Your task to perform on an android device: Is it going to rain this weekend? Image 0: 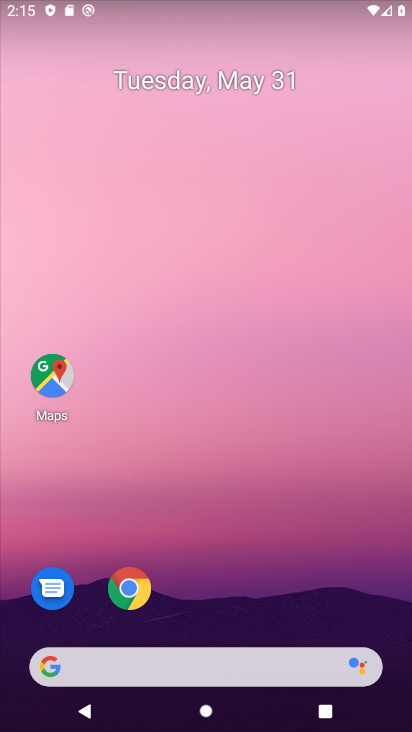
Step 0: click (207, 673)
Your task to perform on an android device: Is it going to rain this weekend? Image 1: 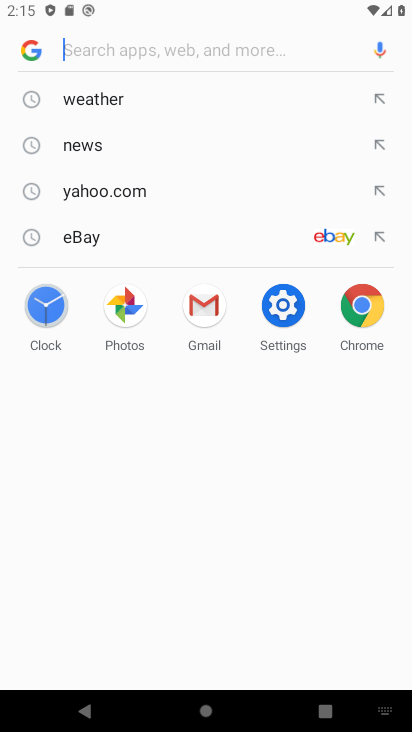
Step 1: click (113, 97)
Your task to perform on an android device: Is it going to rain this weekend? Image 2: 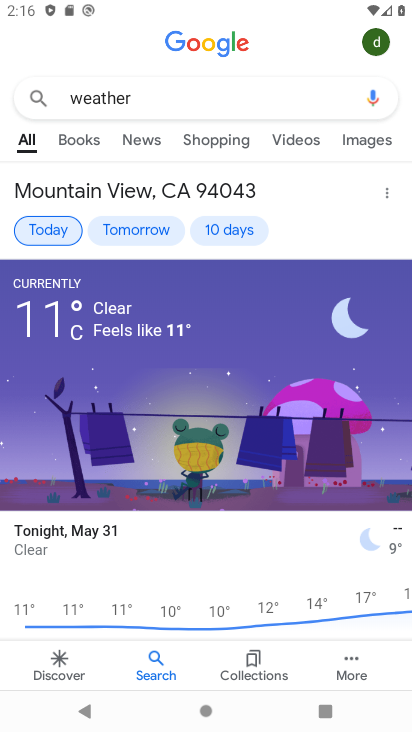
Step 2: click (229, 225)
Your task to perform on an android device: Is it going to rain this weekend? Image 3: 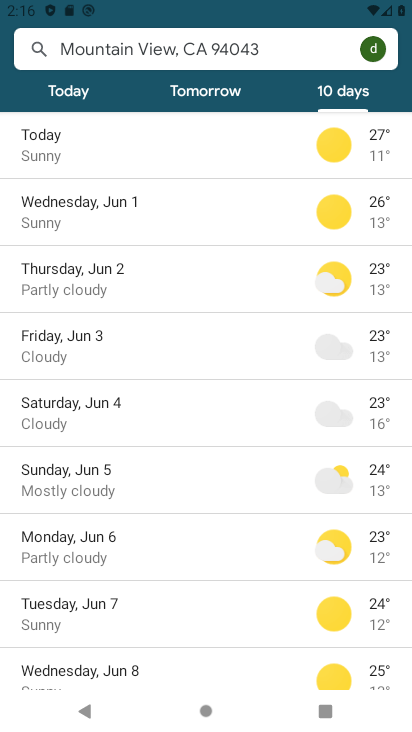
Step 3: task complete